Your task to perform on an android device: Open display settings Image 0: 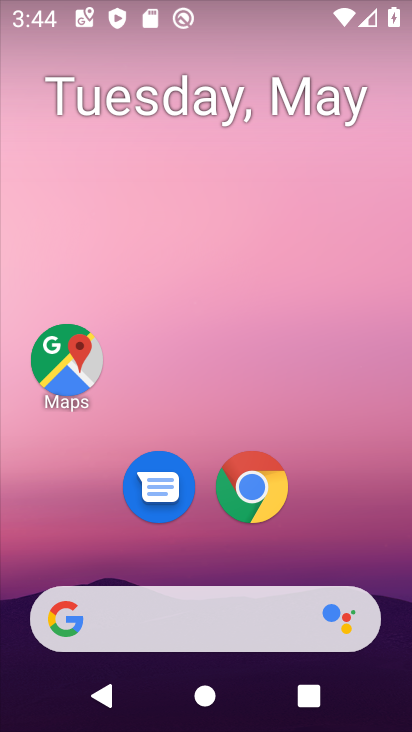
Step 0: drag from (191, 539) to (290, 105)
Your task to perform on an android device: Open display settings Image 1: 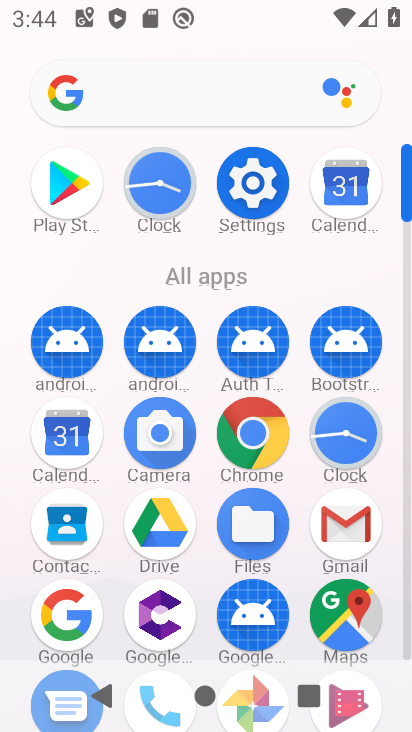
Step 1: click (266, 212)
Your task to perform on an android device: Open display settings Image 2: 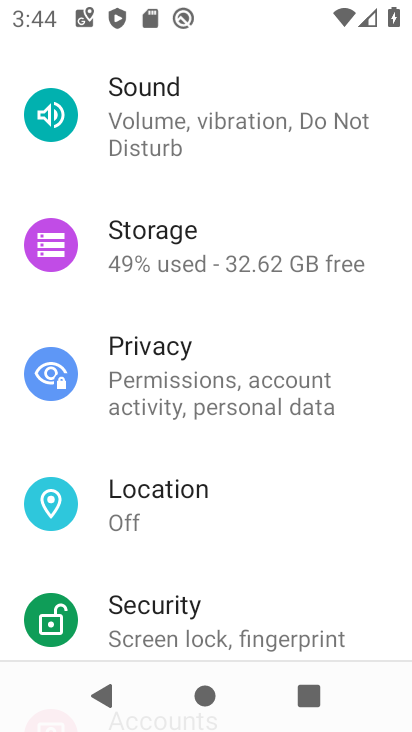
Step 2: drag from (279, 225) to (259, 450)
Your task to perform on an android device: Open display settings Image 3: 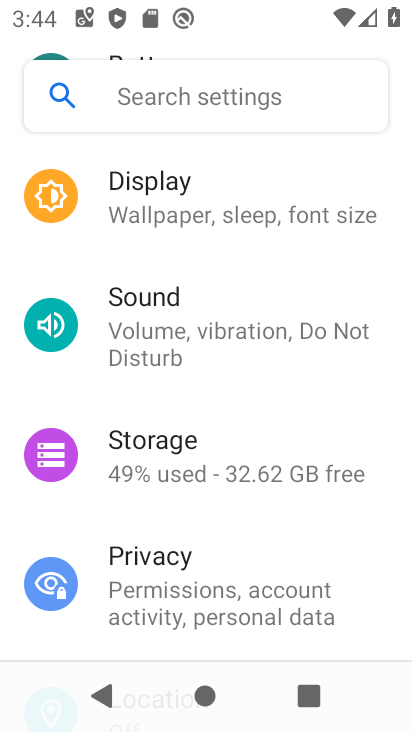
Step 3: drag from (228, 259) to (218, 446)
Your task to perform on an android device: Open display settings Image 4: 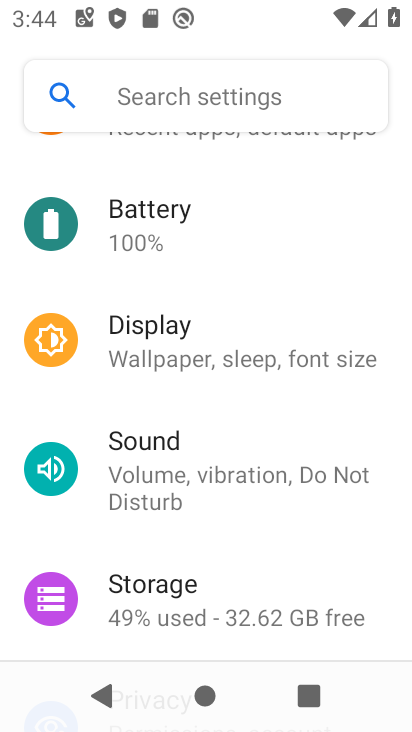
Step 4: click (169, 251)
Your task to perform on an android device: Open display settings Image 5: 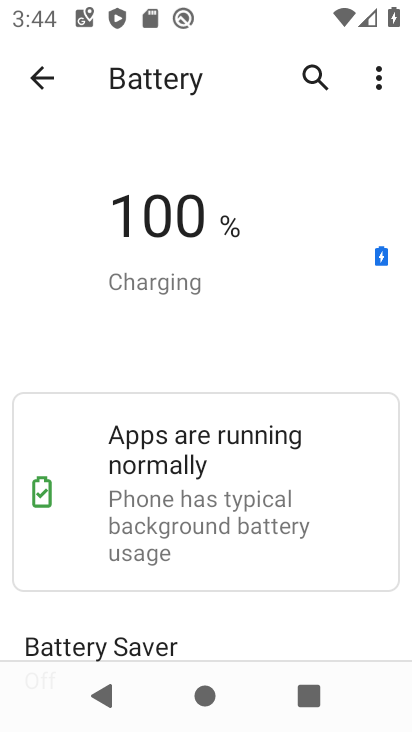
Step 5: click (37, 70)
Your task to perform on an android device: Open display settings Image 6: 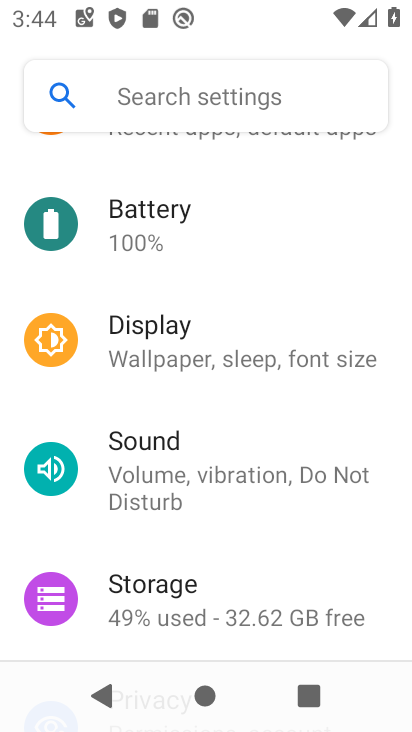
Step 6: click (202, 333)
Your task to perform on an android device: Open display settings Image 7: 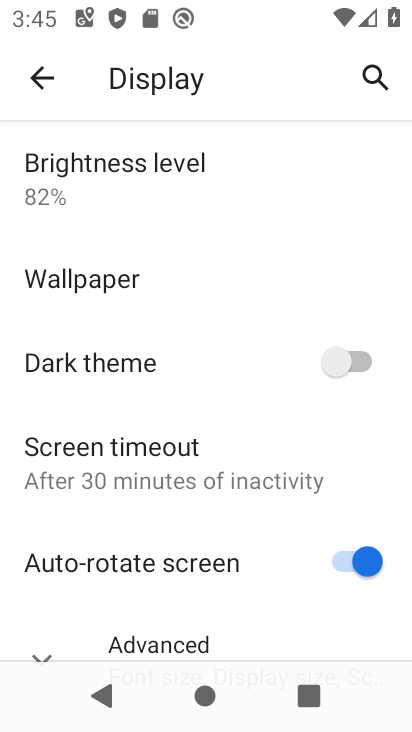
Step 7: task complete